Your task to perform on an android device: Open my contact list Image 0: 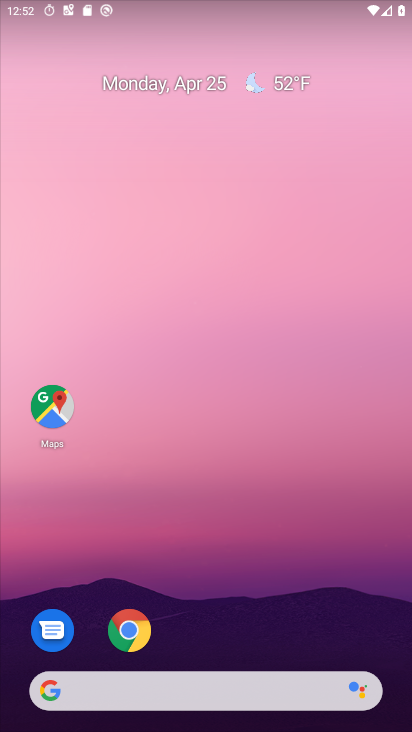
Step 0: drag from (162, 634) to (59, 238)
Your task to perform on an android device: Open my contact list Image 1: 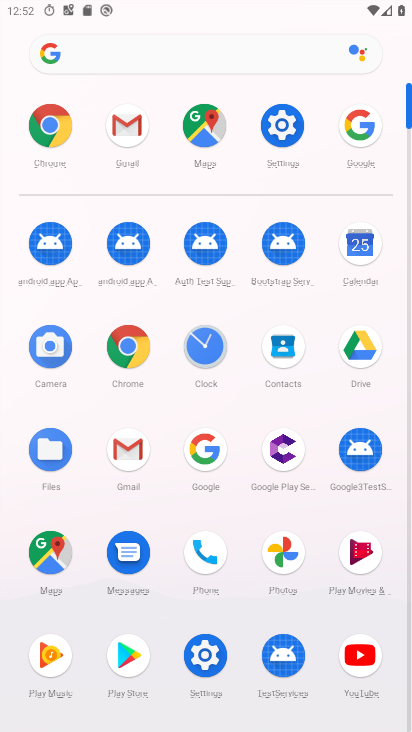
Step 1: click (277, 354)
Your task to perform on an android device: Open my contact list Image 2: 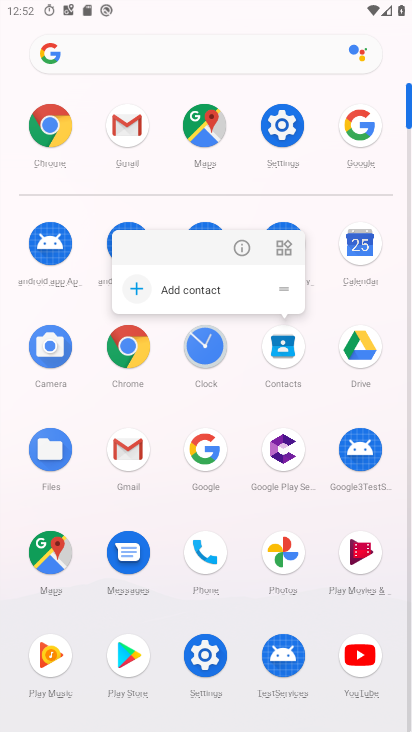
Step 2: click (234, 238)
Your task to perform on an android device: Open my contact list Image 3: 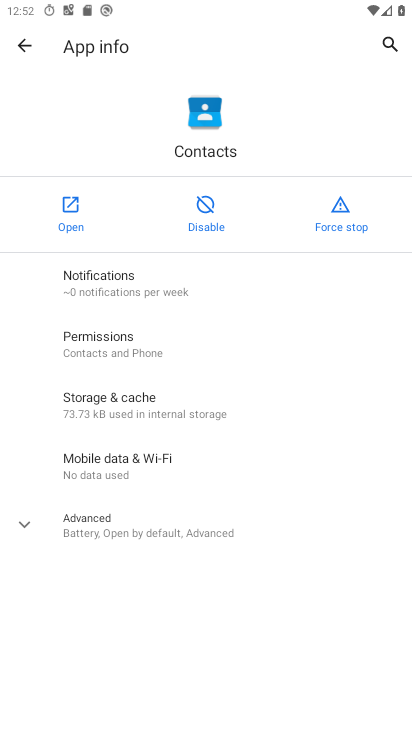
Step 3: click (75, 205)
Your task to perform on an android device: Open my contact list Image 4: 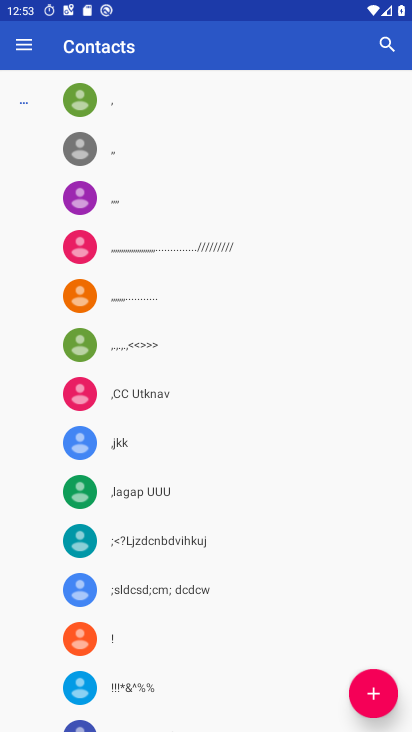
Step 4: task complete